Your task to perform on an android device: toggle wifi Image 0: 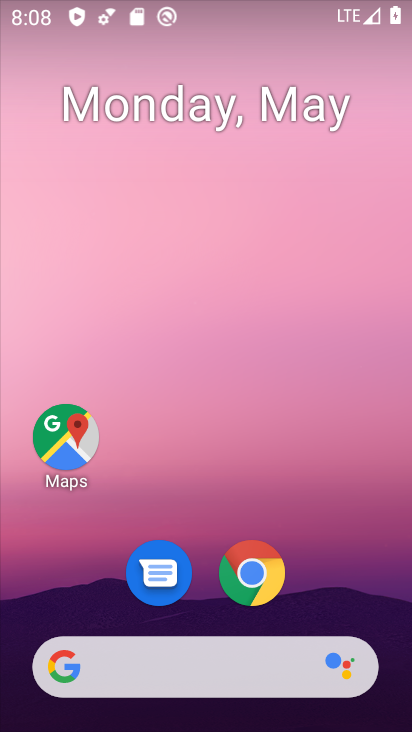
Step 0: drag from (77, 626) to (188, 41)
Your task to perform on an android device: toggle wifi Image 1: 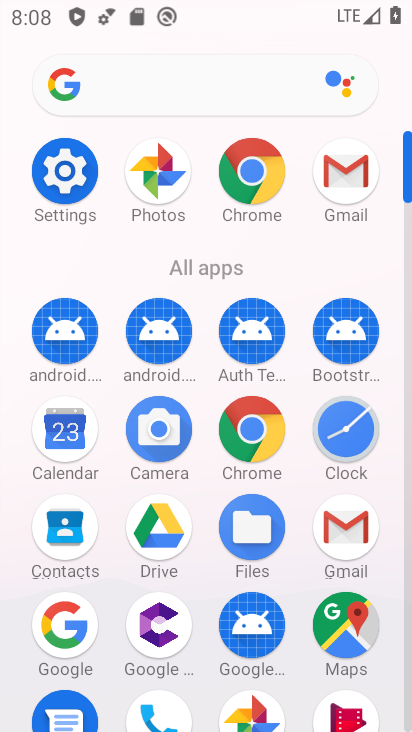
Step 1: drag from (210, 670) to (240, 259)
Your task to perform on an android device: toggle wifi Image 2: 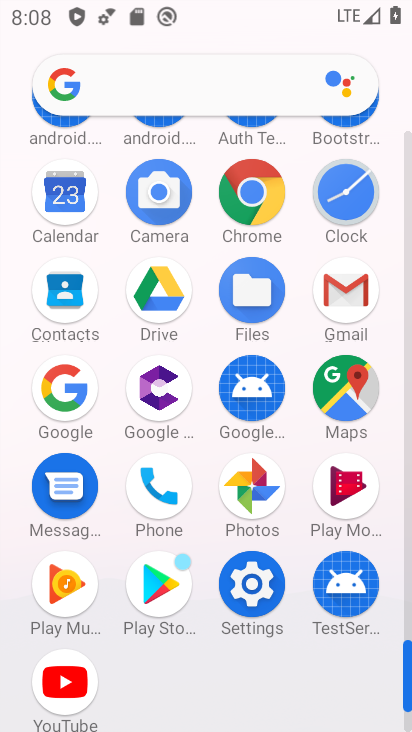
Step 2: click (263, 576)
Your task to perform on an android device: toggle wifi Image 3: 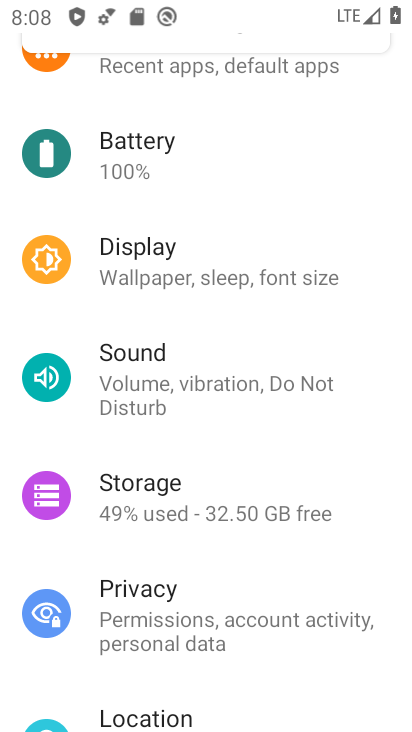
Step 3: drag from (244, 143) to (183, 571)
Your task to perform on an android device: toggle wifi Image 4: 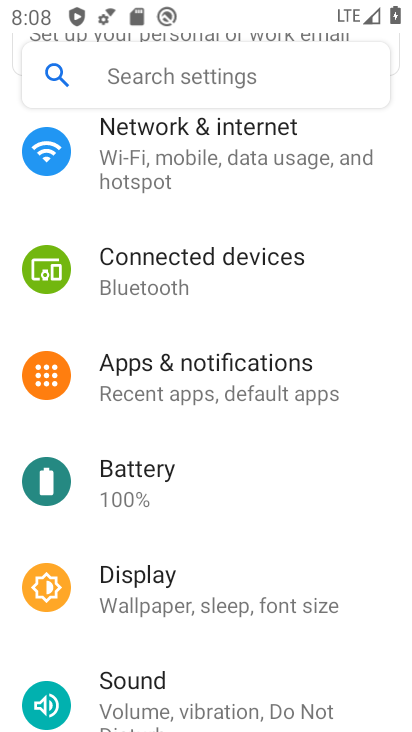
Step 4: drag from (196, 470) to (186, 590)
Your task to perform on an android device: toggle wifi Image 5: 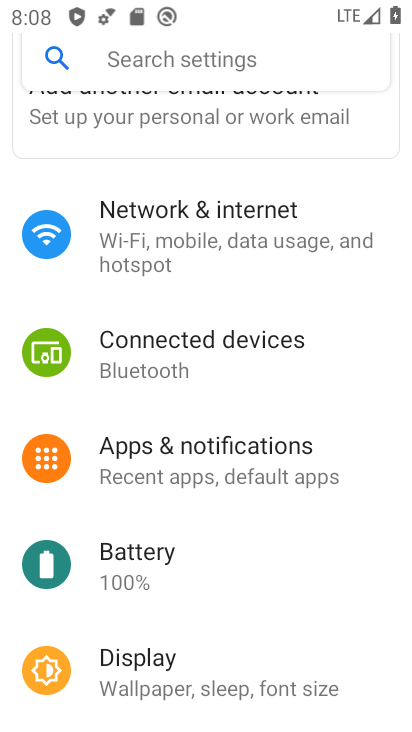
Step 5: click (211, 266)
Your task to perform on an android device: toggle wifi Image 6: 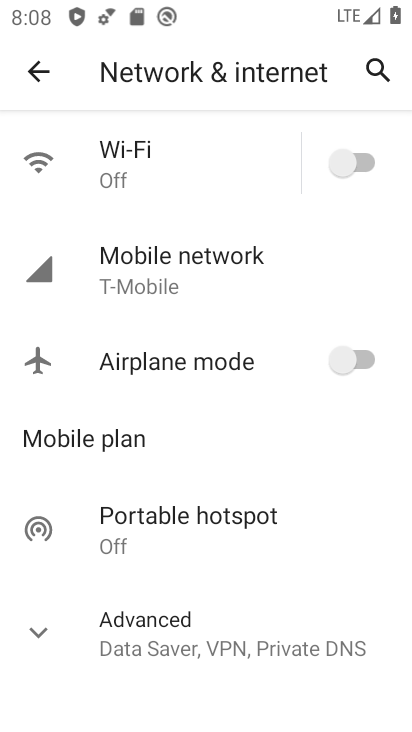
Step 6: click (375, 152)
Your task to perform on an android device: toggle wifi Image 7: 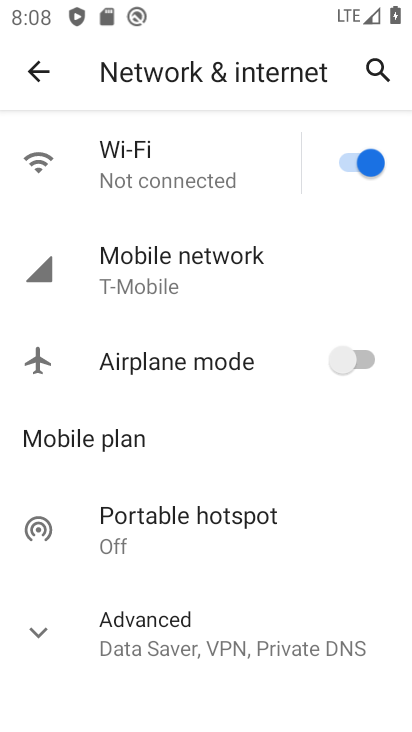
Step 7: task complete